Your task to perform on an android device: turn on improve location accuracy Image 0: 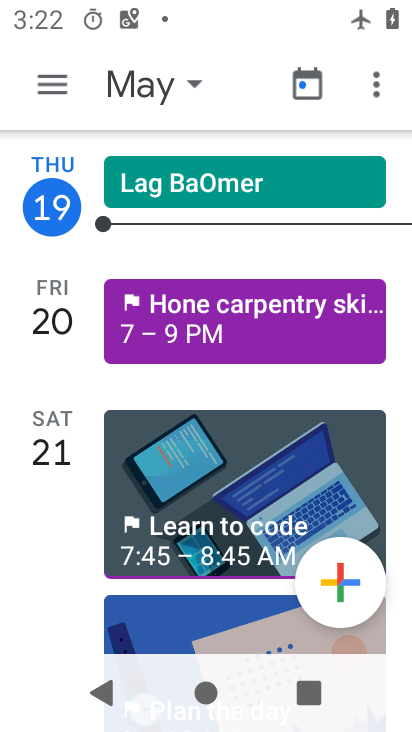
Step 0: press home button
Your task to perform on an android device: turn on improve location accuracy Image 1: 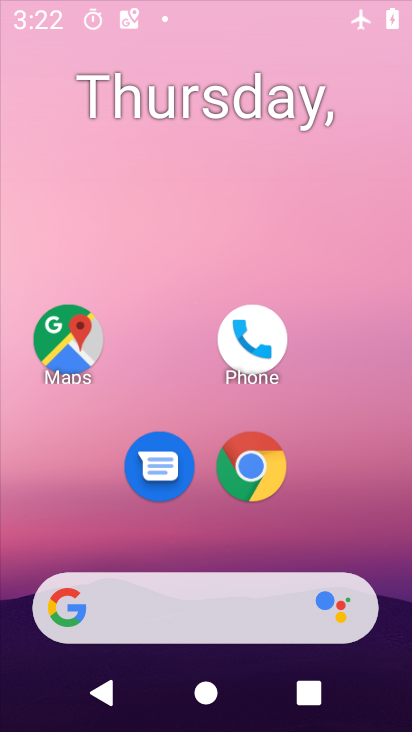
Step 1: drag from (216, 611) to (244, 178)
Your task to perform on an android device: turn on improve location accuracy Image 2: 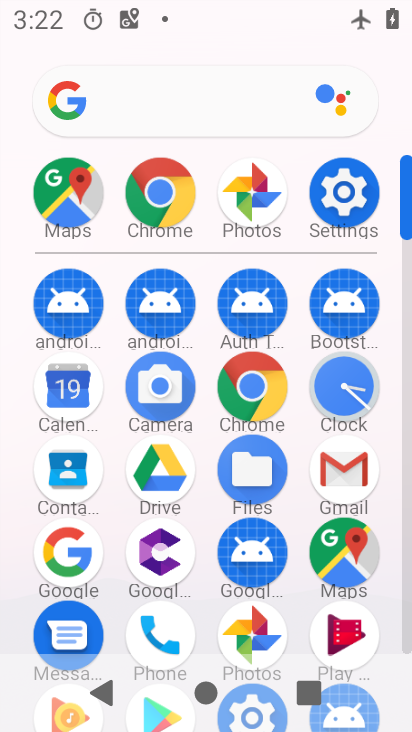
Step 2: click (346, 465)
Your task to perform on an android device: turn on improve location accuracy Image 3: 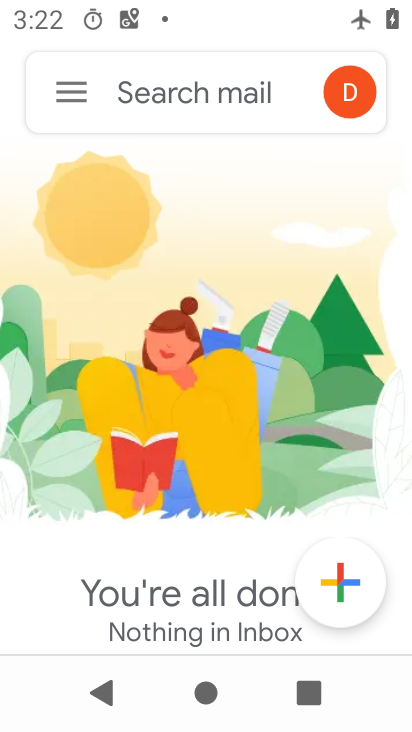
Step 3: click (55, 89)
Your task to perform on an android device: turn on improve location accuracy Image 4: 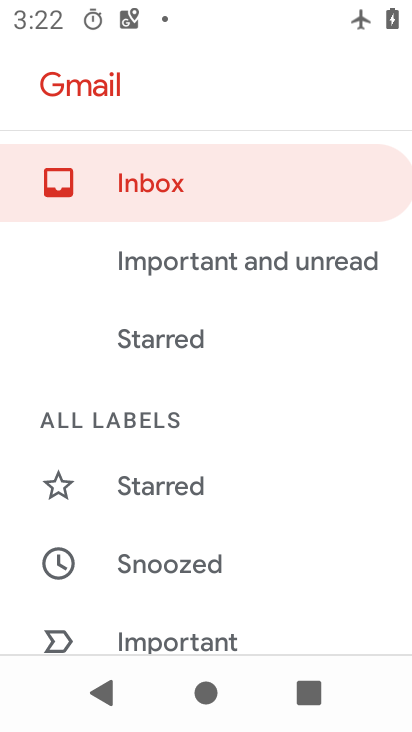
Step 4: drag from (191, 555) to (216, 144)
Your task to perform on an android device: turn on improve location accuracy Image 5: 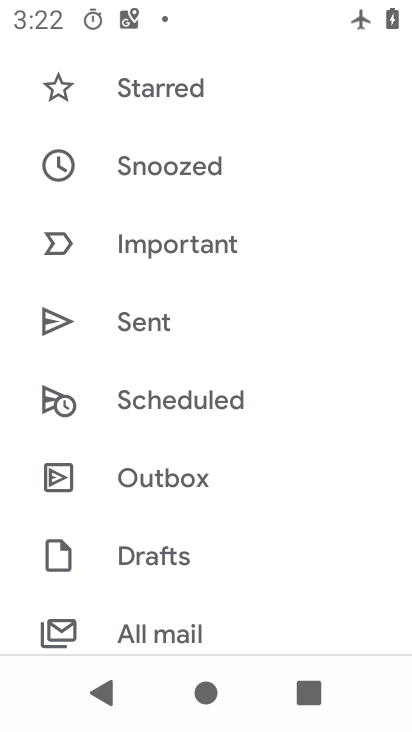
Step 5: drag from (175, 553) to (218, 92)
Your task to perform on an android device: turn on improve location accuracy Image 6: 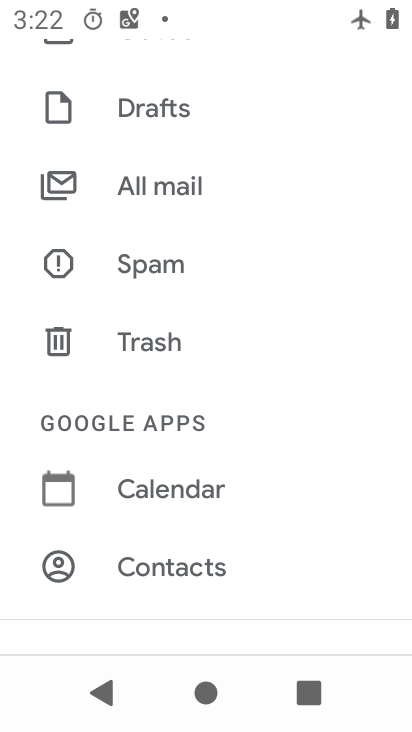
Step 6: drag from (206, 487) to (274, 139)
Your task to perform on an android device: turn on improve location accuracy Image 7: 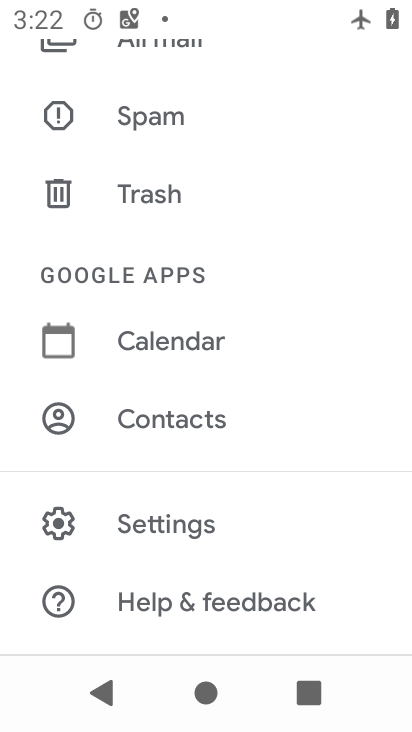
Step 7: press home button
Your task to perform on an android device: turn on improve location accuracy Image 8: 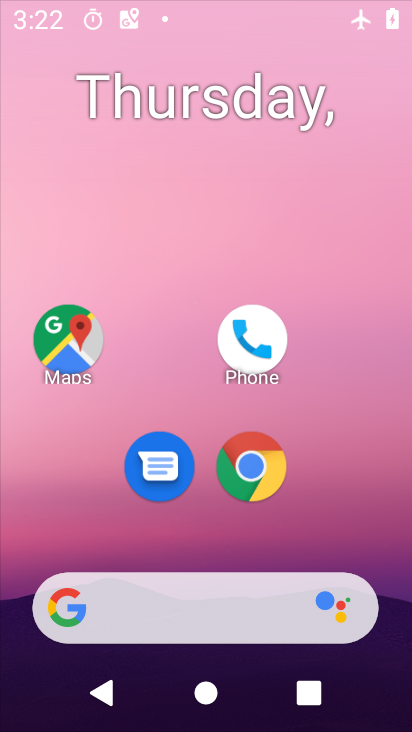
Step 8: drag from (212, 586) to (199, 109)
Your task to perform on an android device: turn on improve location accuracy Image 9: 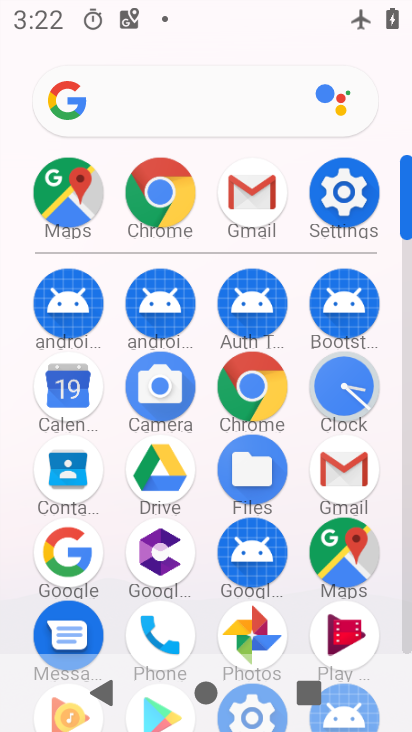
Step 9: click (343, 191)
Your task to perform on an android device: turn on improve location accuracy Image 10: 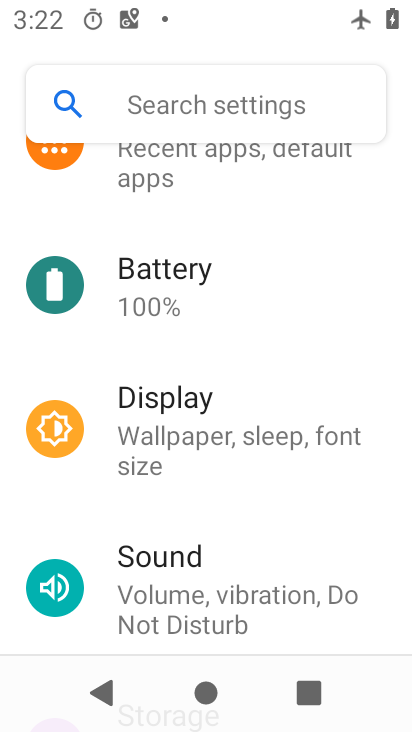
Step 10: drag from (208, 228) to (372, 9)
Your task to perform on an android device: turn on improve location accuracy Image 11: 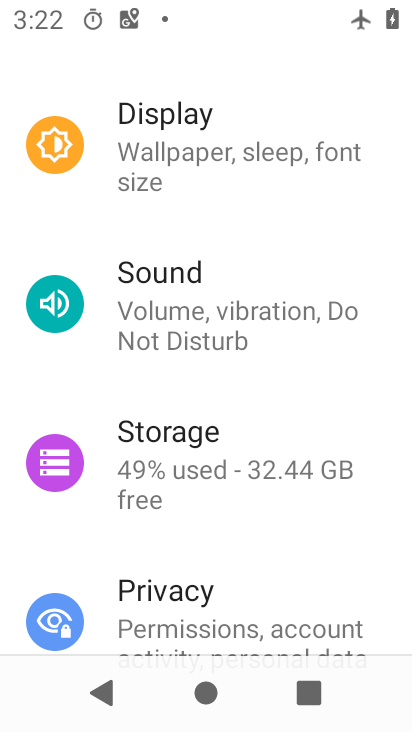
Step 11: drag from (231, 586) to (275, 158)
Your task to perform on an android device: turn on improve location accuracy Image 12: 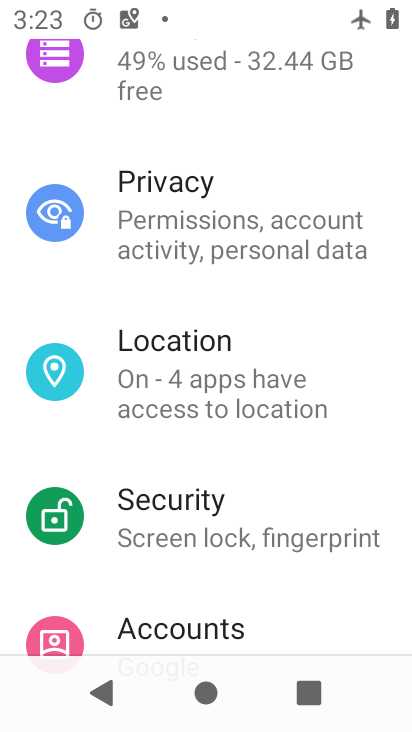
Step 12: click (217, 360)
Your task to perform on an android device: turn on improve location accuracy Image 13: 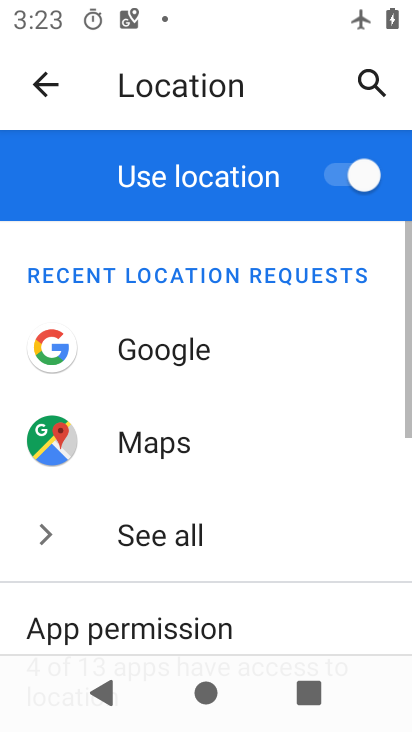
Step 13: drag from (209, 614) to (231, 173)
Your task to perform on an android device: turn on improve location accuracy Image 14: 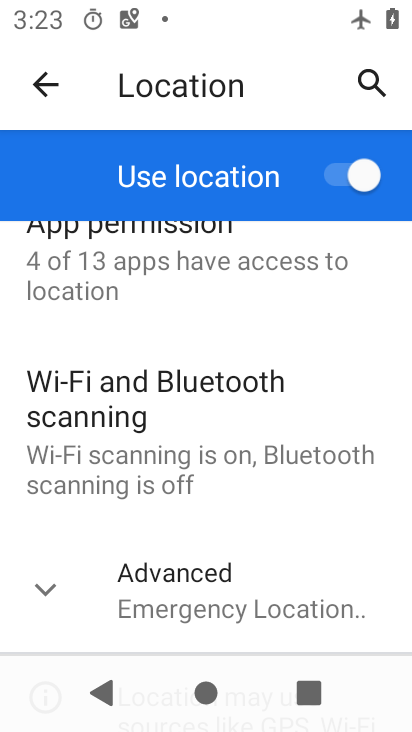
Step 14: click (201, 580)
Your task to perform on an android device: turn on improve location accuracy Image 15: 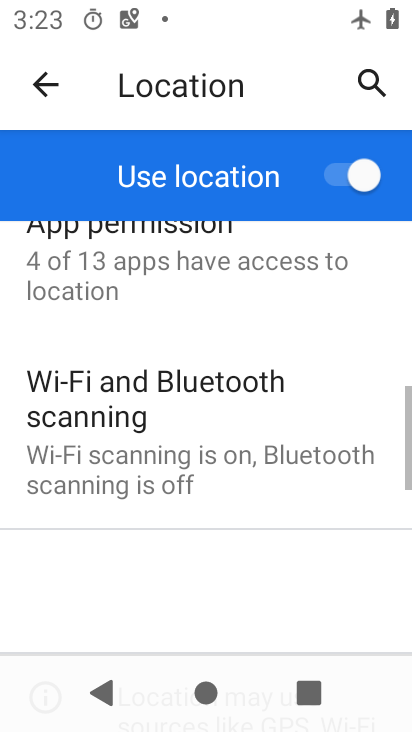
Step 15: drag from (200, 564) to (245, 18)
Your task to perform on an android device: turn on improve location accuracy Image 16: 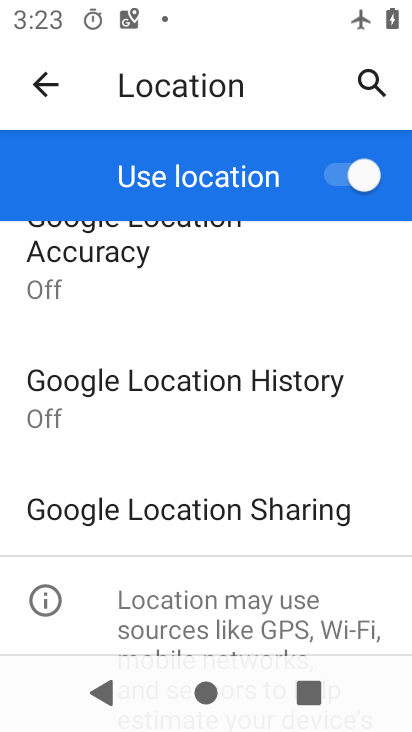
Step 16: click (119, 264)
Your task to perform on an android device: turn on improve location accuracy Image 17: 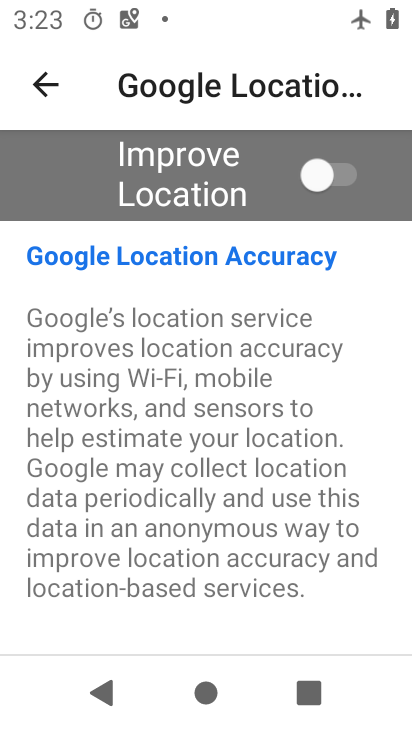
Step 17: click (304, 168)
Your task to perform on an android device: turn on improve location accuracy Image 18: 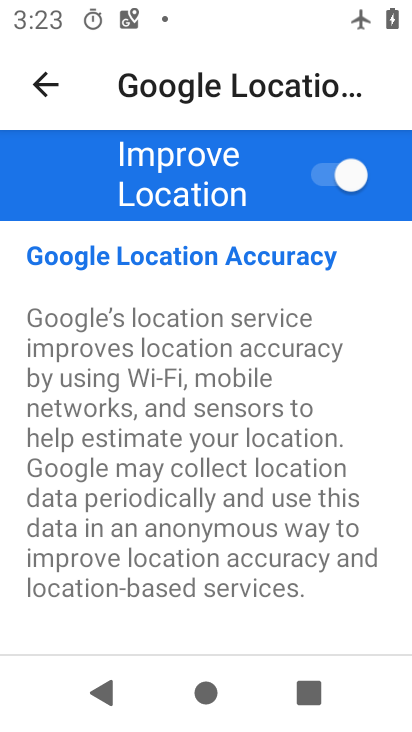
Step 18: task complete